Your task to perform on an android device: What's the weather? Image 0: 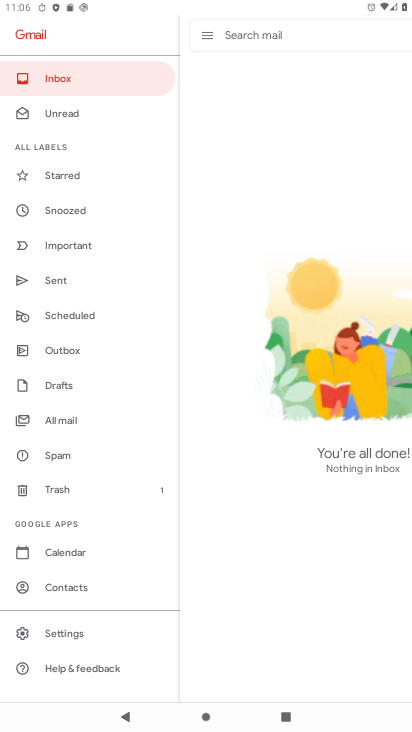
Step 0: press home button
Your task to perform on an android device: What's the weather? Image 1: 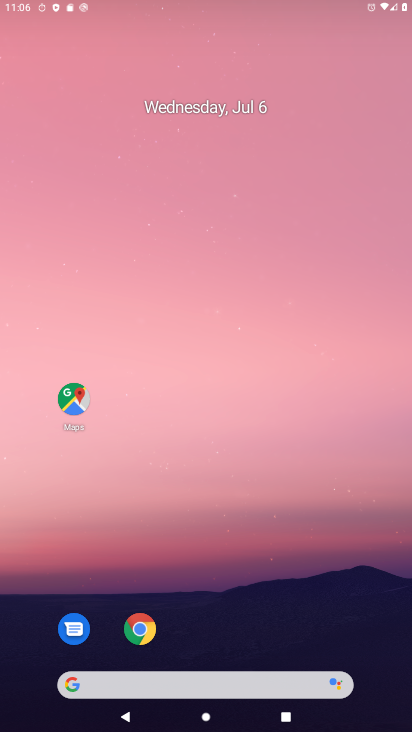
Step 1: drag from (214, 637) to (244, 147)
Your task to perform on an android device: What's the weather? Image 2: 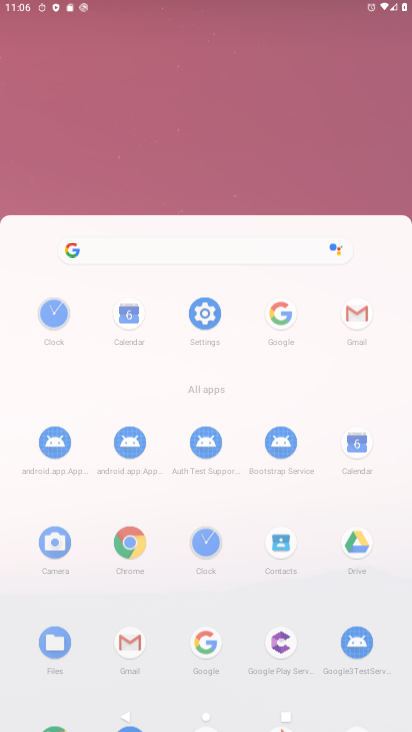
Step 2: click (245, 139)
Your task to perform on an android device: What's the weather? Image 3: 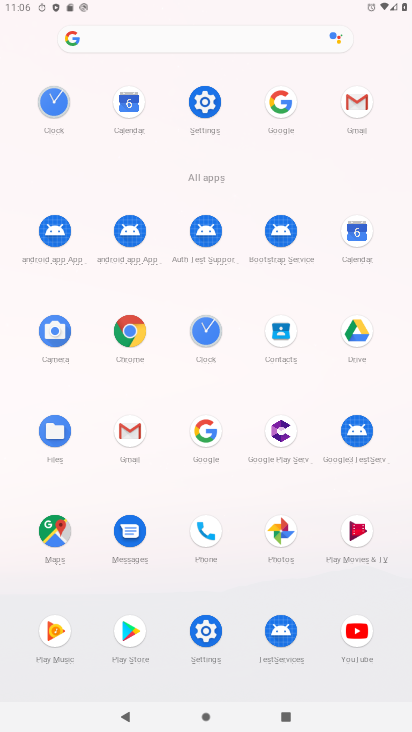
Step 3: click (207, 424)
Your task to perform on an android device: What's the weather? Image 4: 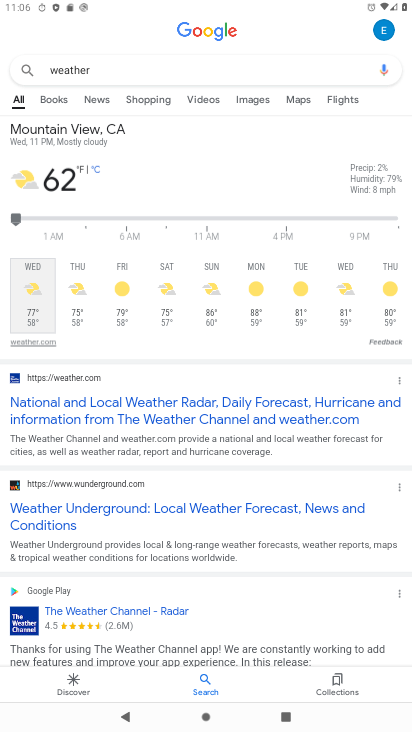
Step 4: click (206, 70)
Your task to perform on an android device: What's the weather? Image 5: 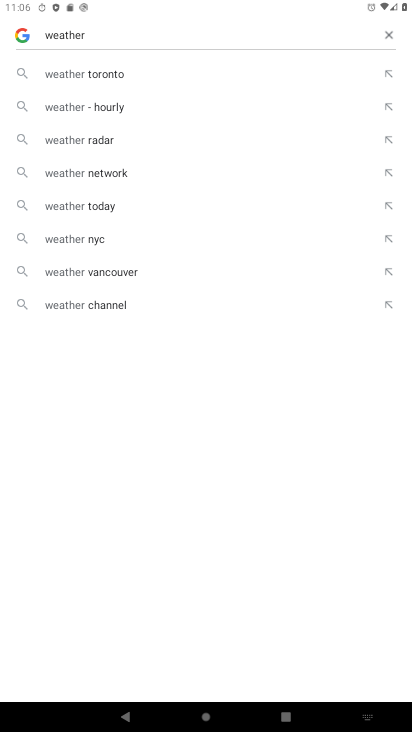
Step 5: click (114, 34)
Your task to perform on an android device: What's the weather? Image 6: 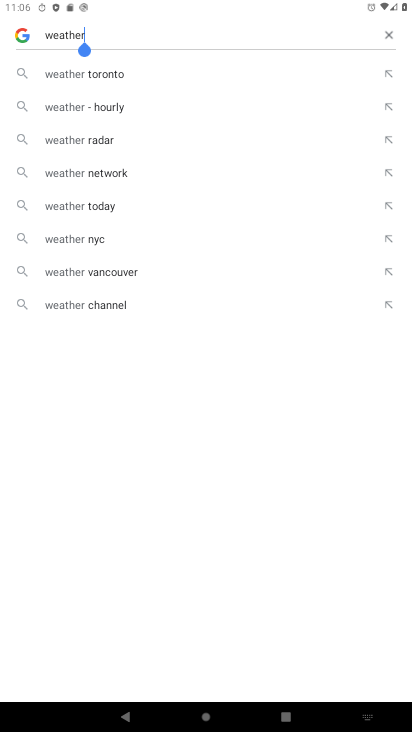
Step 6: task complete